Your task to perform on an android device: toggle data saver in the chrome app Image 0: 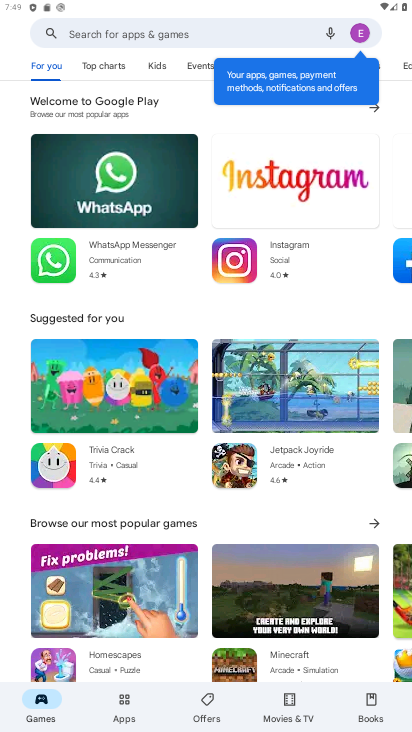
Step 0: press home button
Your task to perform on an android device: toggle data saver in the chrome app Image 1: 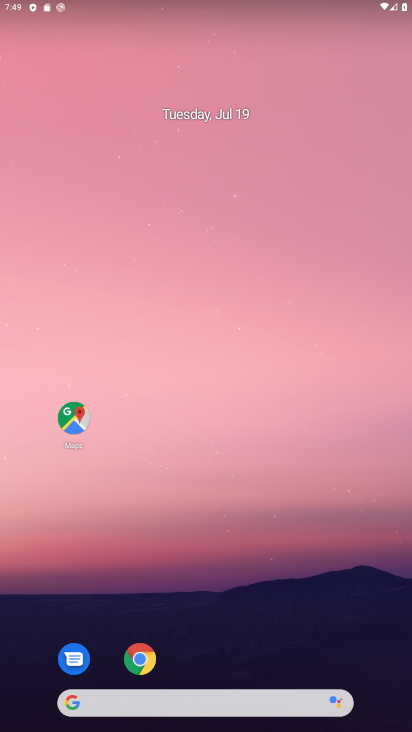
Step 1: drag from (278, 614) to (344, 72)
Your task to perform on an android device: toggle data saver in the chrome app Image 2: 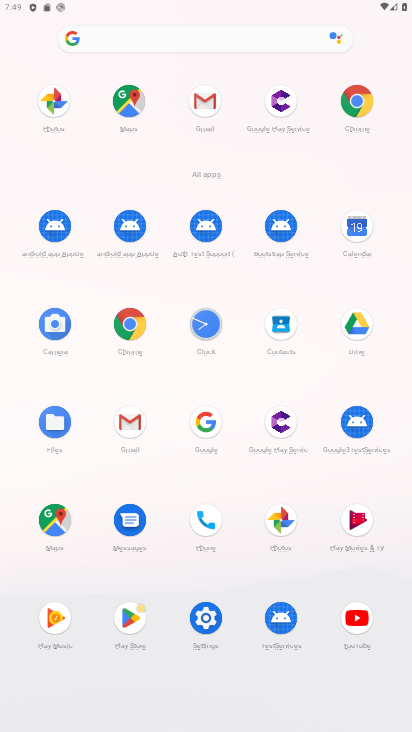
Step 2: drag from (238, 482) to (264, 113)
Your task to perform on an android device: toggle data saver in the chrome app Image 3: 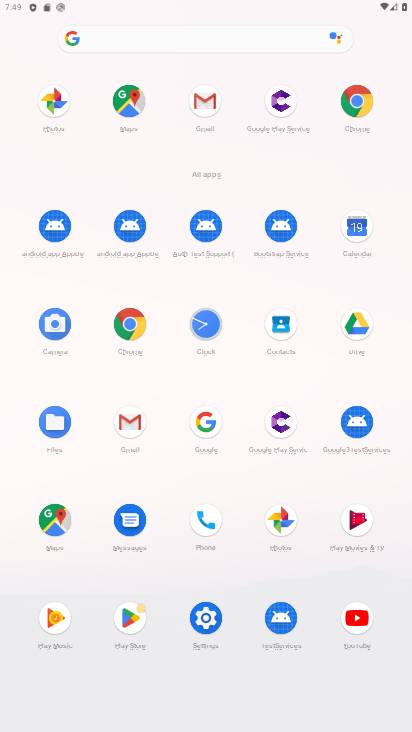
Step 3: click (131, 320)
Your task to perform on an android device: toggle data saver in the chrome app Image 4: 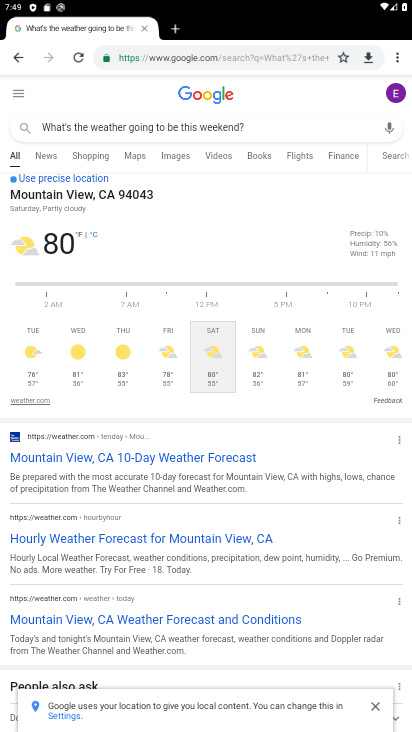
Step 4: drag from (393, 56) to (294, 345)
Your task to perform on an android device: toggle data saver in the chrome app Image 5: 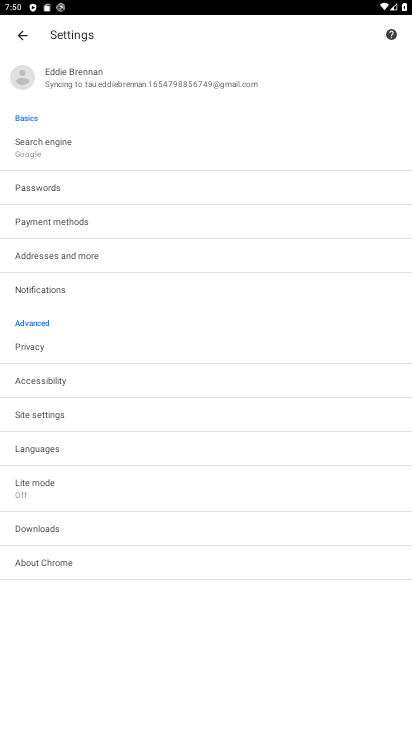
Step 5: click (51, 485)
Your task to perform on an android device: toggle data saver in the chrome app Image 6: 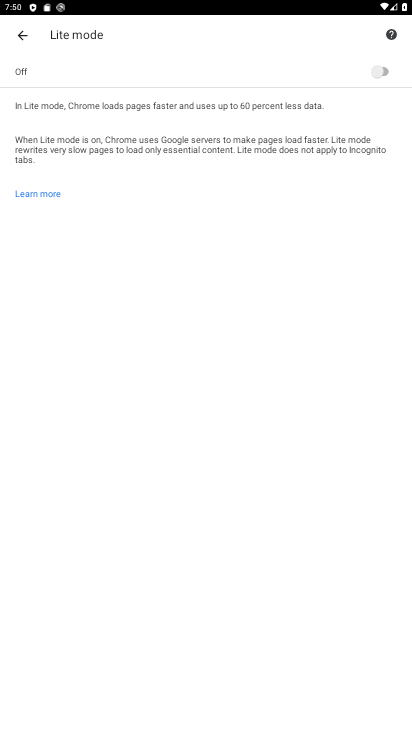
Step 6: click (353, 69)
Your task to perform on an android device: toggle data saver in the chrome app Image 7: 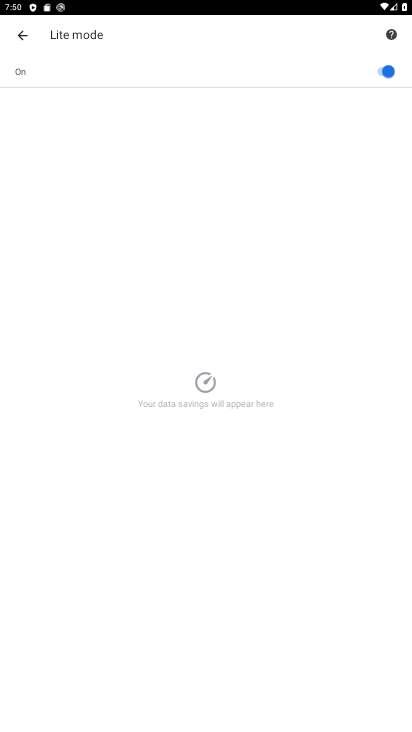
Step 7: task complete